Your task to perform on an android device: turn off improve location accuracy Image 0: 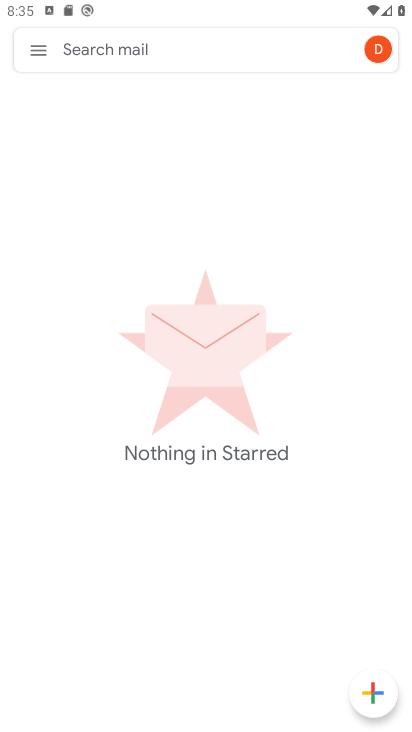
Step 0: press home button
Your task to perform on an android device: turn off improve location accuracy Image 1: 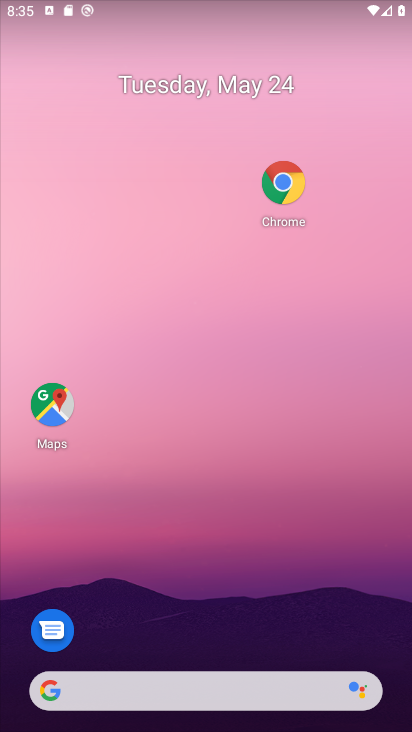
Step 1: drag from (229, 700) to (276, 213)
Your task to perform on an android device: turn off improve location accuracy Image 2: 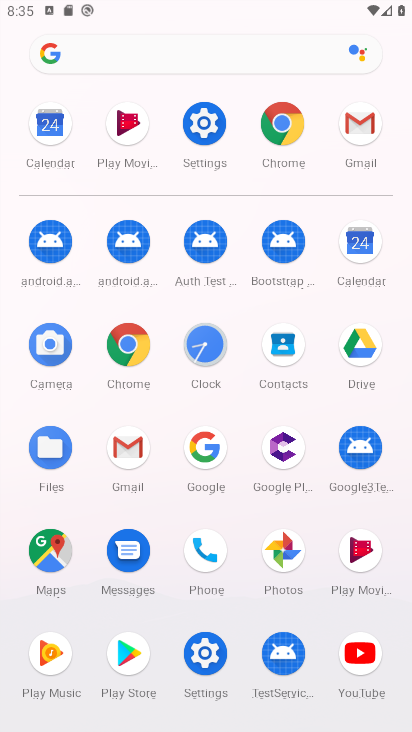
Step 2: click (190, 126)
Your task to perform on an android device: turn off improve location accuracy Image 3: 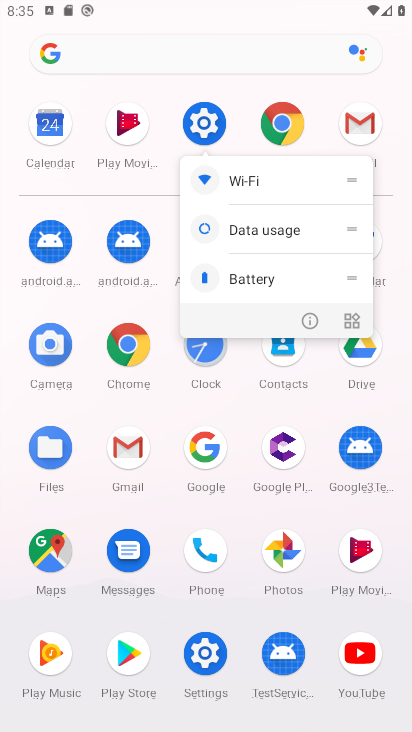
Step 3: click (201, 134)
Your task to perform on an android device: turn off improve location accuracy Image 4: 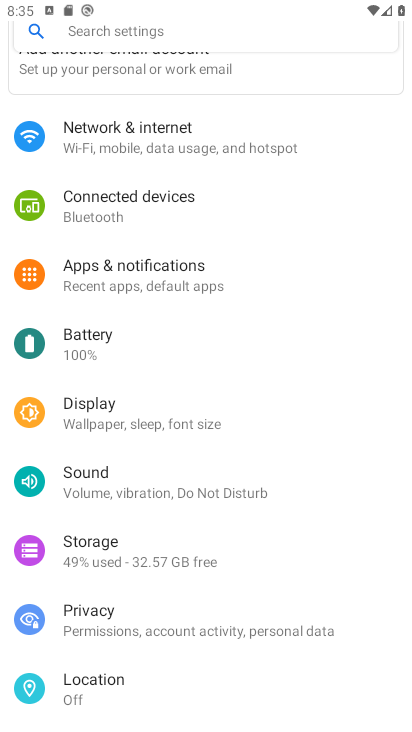
Step 4: click (144, 38)
Your task to perform on an android device: turn off improve location accuracy Image 5: 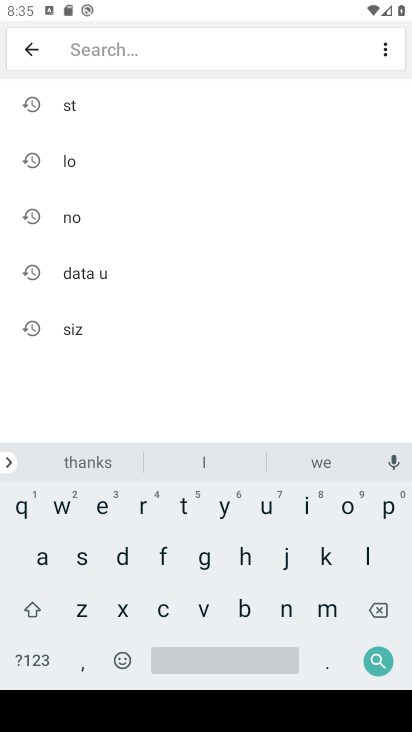
Step 5: click (75, 164)
Your task to perform on an android device: turn off improve location accuracy Image 6: 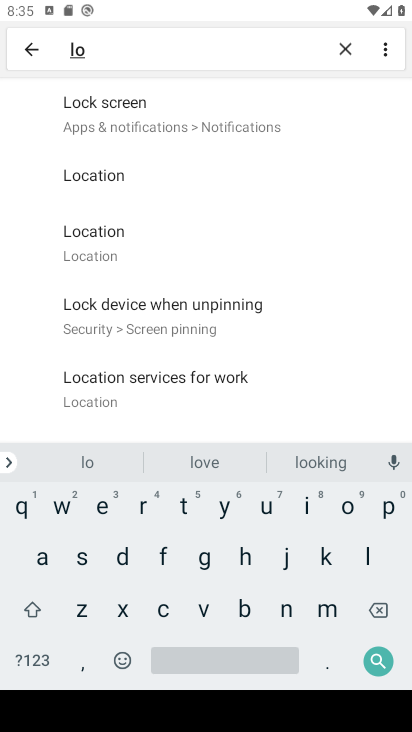
Step 6: click (136, 230)
Your task to perform on an android device: turn off improve location accuracy Image 7: 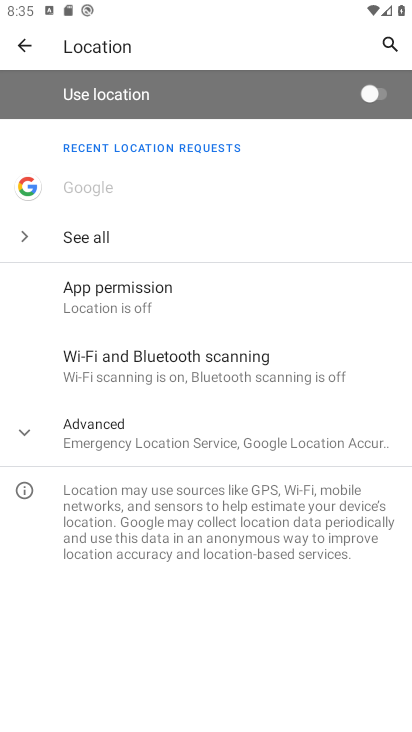
Step 7: click (91, 438)
Your task to perform on an android device: turn off improve location accuracy Image 8: 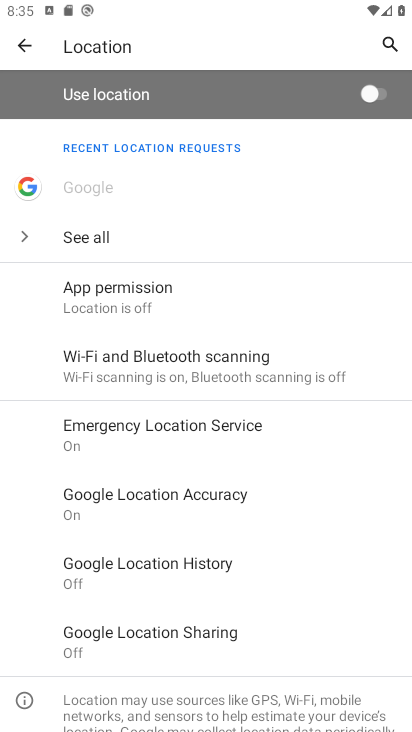
Step 8: click (178, 499)
Your task to perform on an android device: turn off improve location accuracy Image 9: 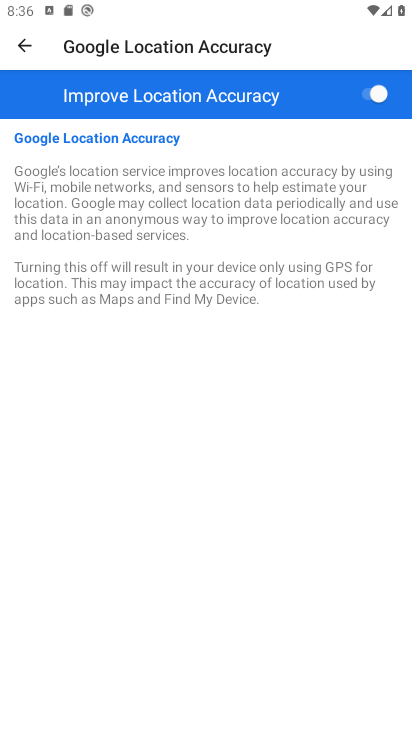
Step 9: click (361, 90)
Your task to perform on an android device: turn off improve location accuracy Image 10: 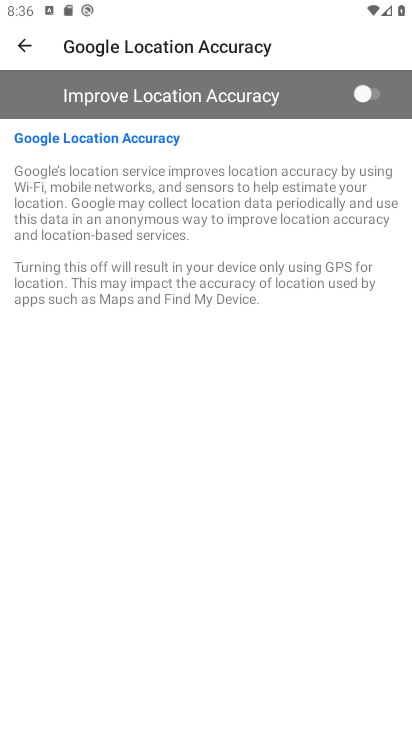
Step 10: task complete